Your task to perform on an android device: find snoozed emails in the gmail app Image 0: 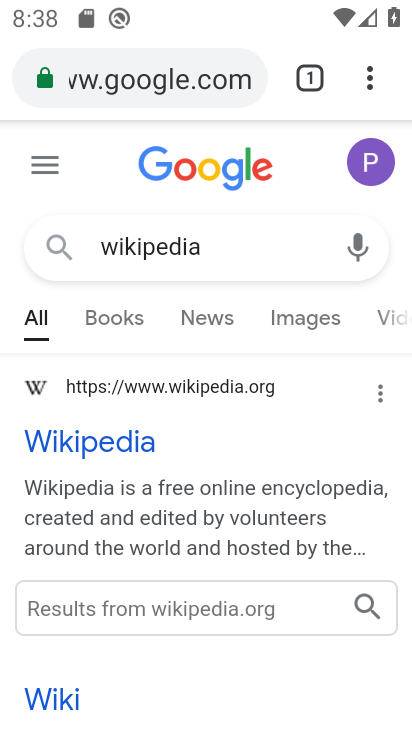
Step 0: press home button
Your task to perform on an android device: find snoozed emails in the gmail app Image 1: 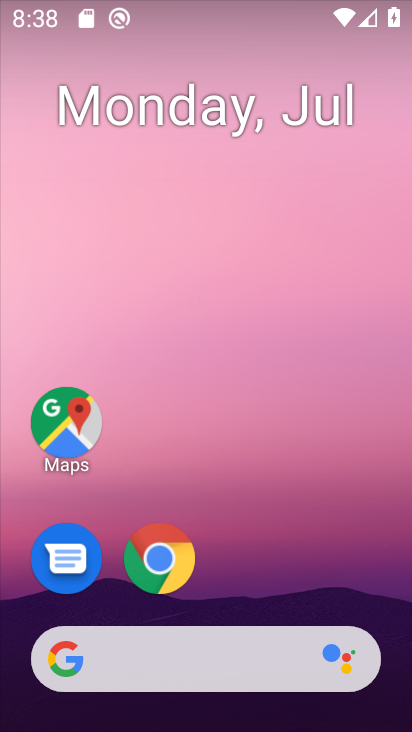
Step 1: drag from (320, 582) to (372, 111)
Your task to perform on an android device: find snoozed emails in the gmail app Image 2: 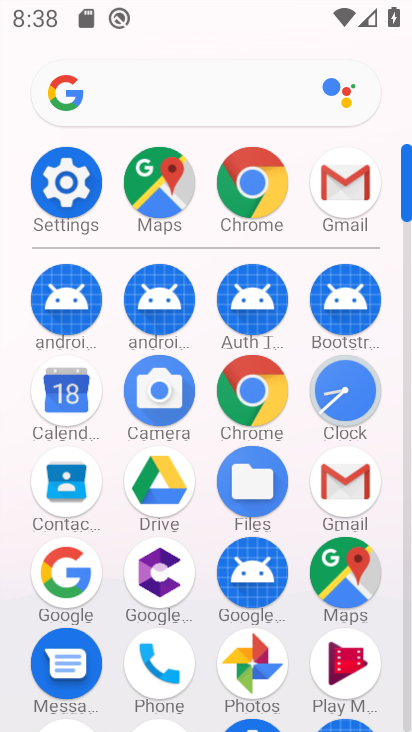
Step 2: click (340, 498)
Your task to perform on an android device: find snoozed emails in the gmail app Image 3: 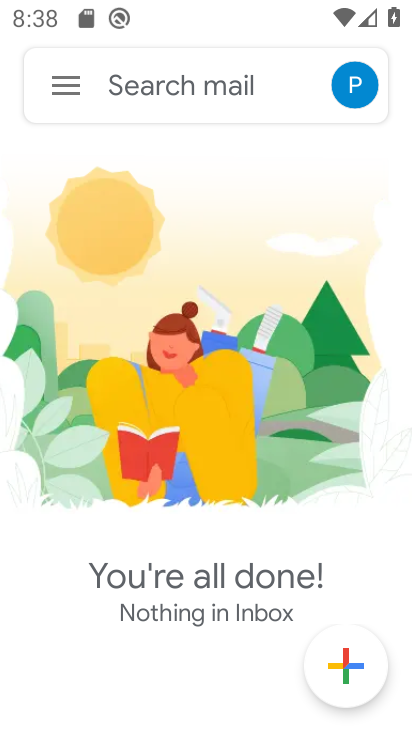
Step 3: click (65, 88)
Your task to perform on an android device: find snoozed emails in the gmail app Image 4: 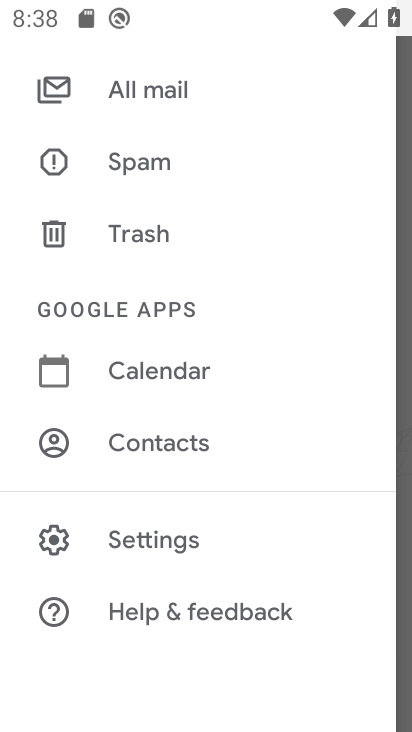
Step 4: drag from (282, 270) to (285, 383)
Your task to perform on an android device: find snoozed emails in the gmail app Image 5: 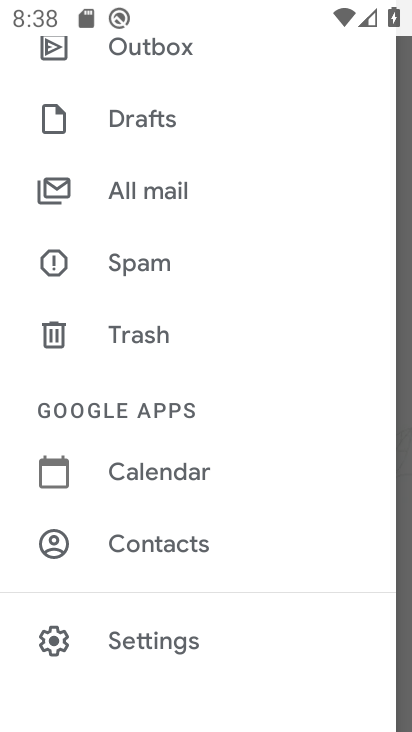
Step 5: drag from (293, 213) to (292, 323)
Your task to perform on an android device: find snoozed emails in the gmail app Image 6: 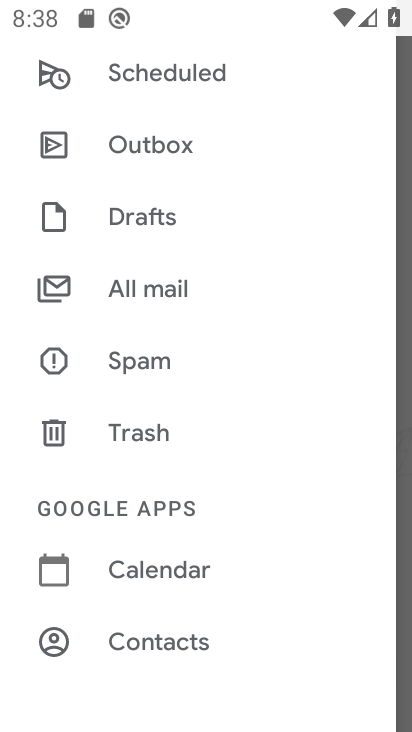
Step 6: drag from (294, 193) to (297, 299)
Your task to perform on an android device: find snoozed emails in the gmail app Image 7: 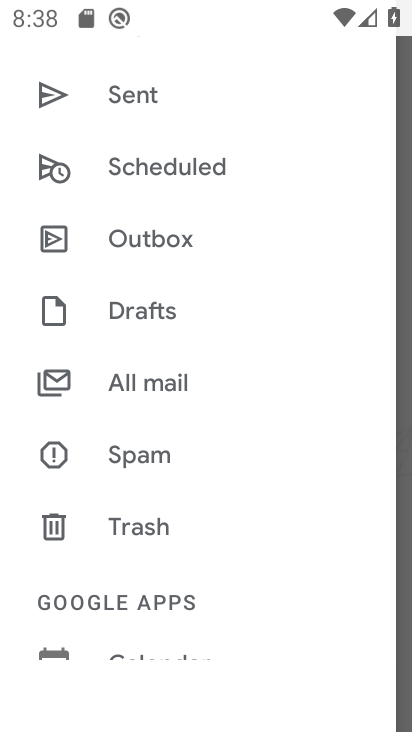
Step 7: drag from (305, 180) to (306, 263)
Your task to perform on an android device: find snoozed emails in the gmail app Image 8: 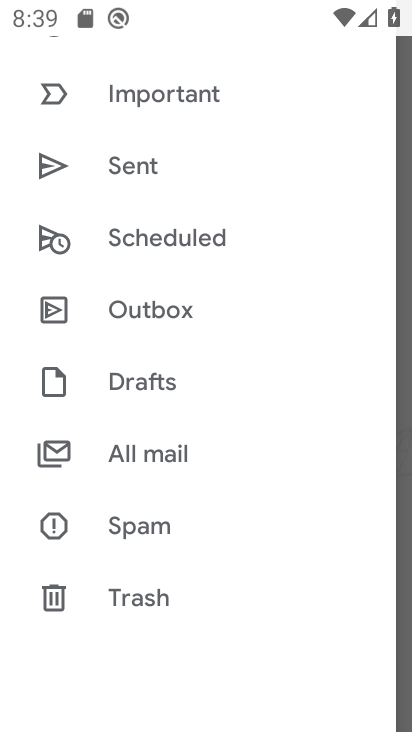
Step 8: drag from (313, 238) to (327, 345)
Your task to perform on an android device: find snoozed emails in the gmail app Image 9: 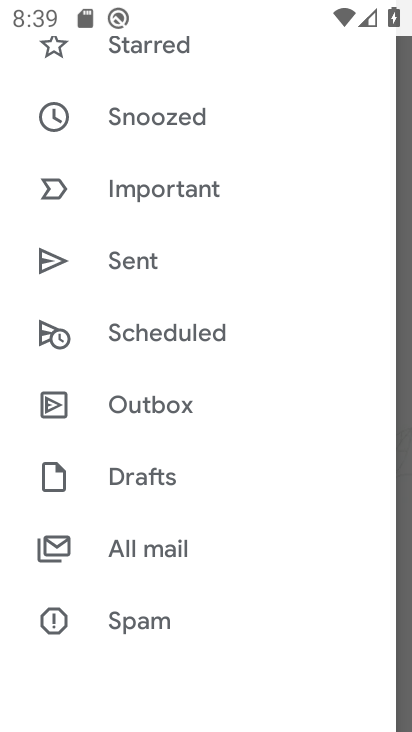
Step 9: drag from (321, 247) to (328, 344)
Your task to perform on an android device: find snoozed emails in the gmail app Image 10: 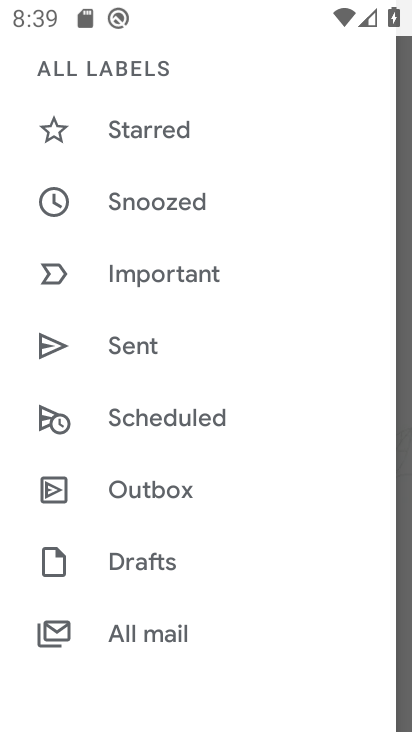
Step 10: drag from (318, 274) to (329, 433)
Your task to perform on an android device: find snoozed emails in the gmail app Image 11: 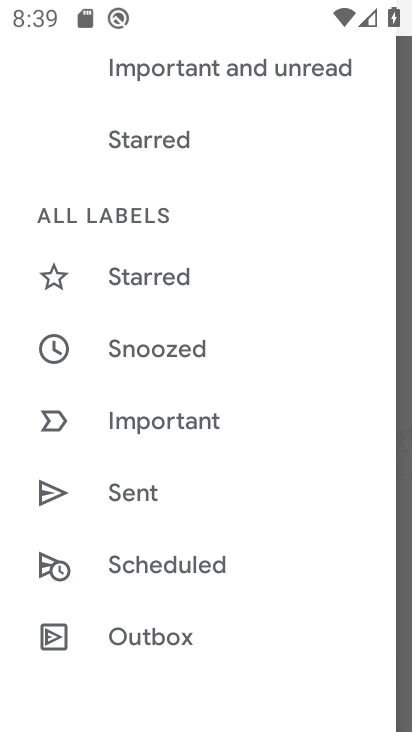
Step 11: drag from (318, 286) to (318, 406)
Your task to perform on an android device: find snoozed emails in the gmail app Image 12: 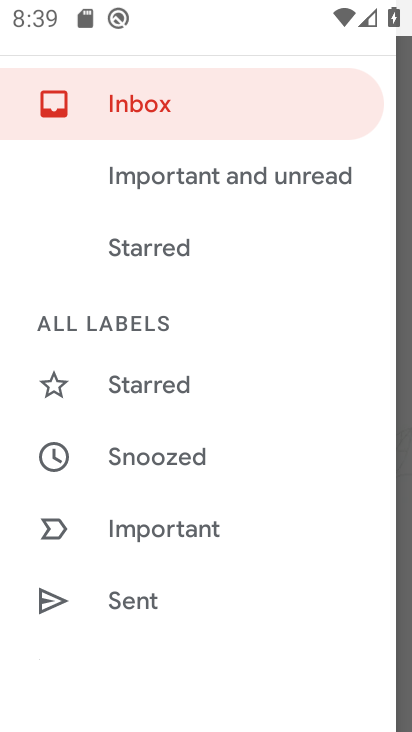
Step 12: click (183, 449)
Your task to perform on an android device: find snoozed emails in the gmail app Image 13: 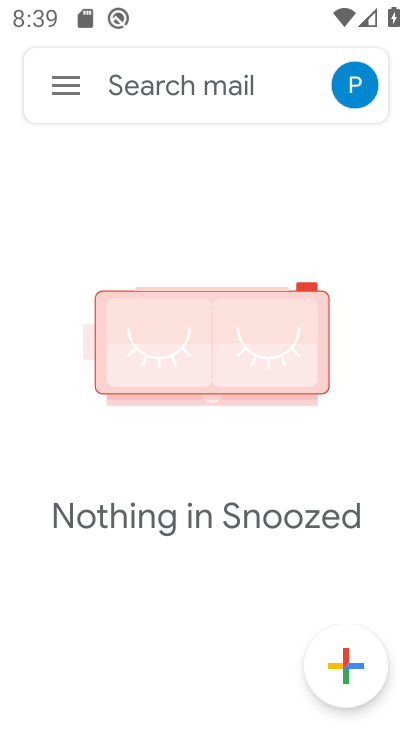
Step 13: task complete